Your task to perform on an android device: Search for Mexican restaurants on Maps Image 0: 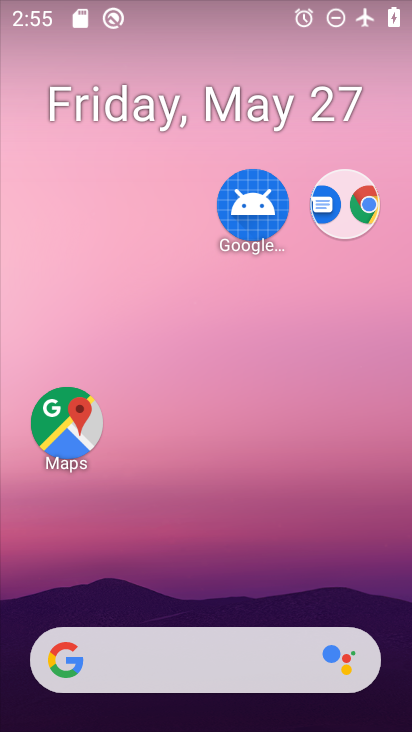
Step 0: drag from (282, 588) to (341, 116)
Your task to perform on an android device: Search for Mexican restaurants on Maps Image 1: 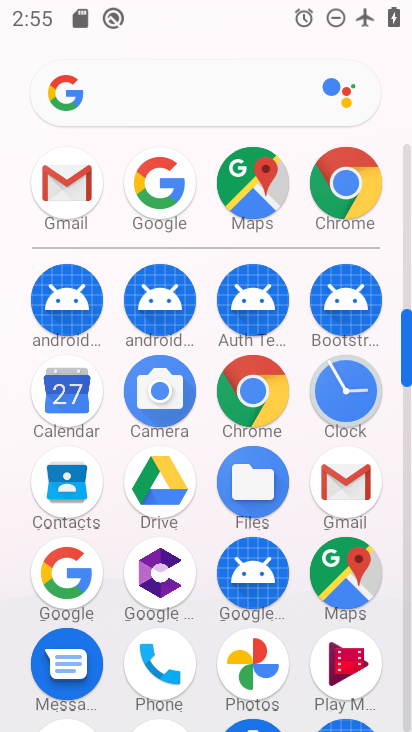
Step 1: click (352, 560)
Your task to perform on an android device: Search for Mexican restaurants on Maps Image 2: 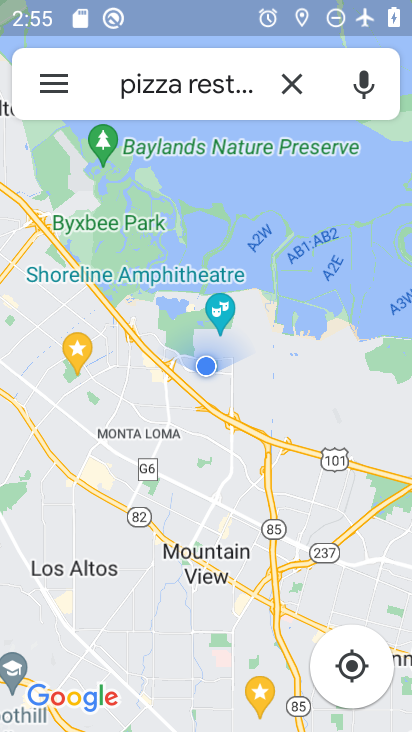
Step 2: click (286, 82)
Your task to perform on an android device: Search for Mexican restaurants on Maps Image 3: 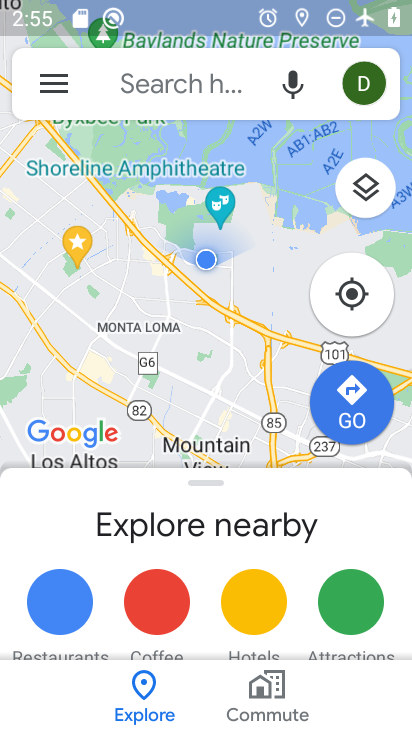
Step 3: click (200, 95)
Your task to perform on an android device: Search for Mexican restaurants on Maps Image 4: 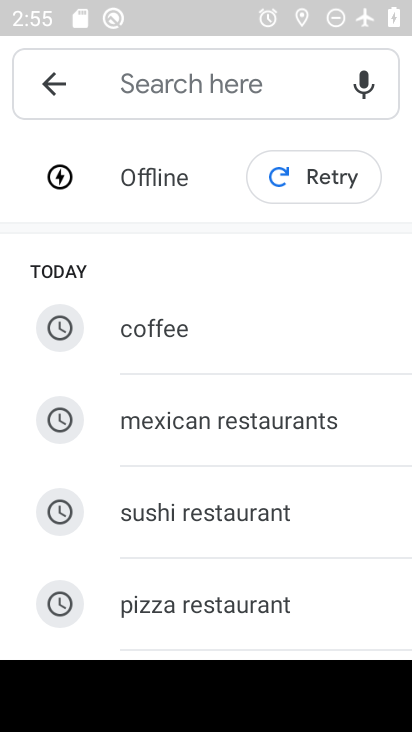
Step 4: click (305, 372)
Your task to perform on an android device: Search for Mexican restaurants on Maps Image 5: 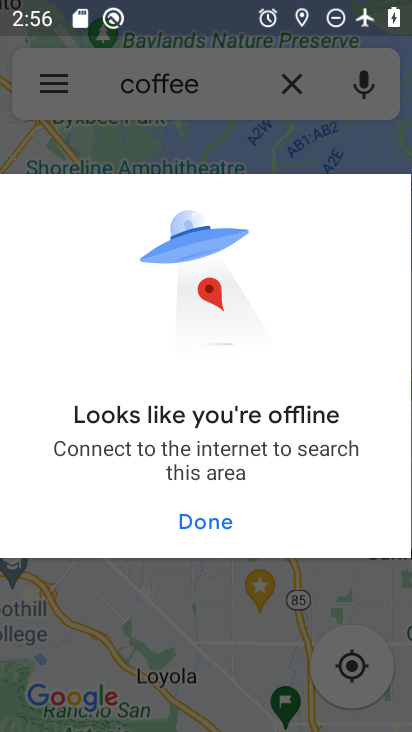
Step 5: task complete